Your task to perform on an android device: Go to Maps Image 0: 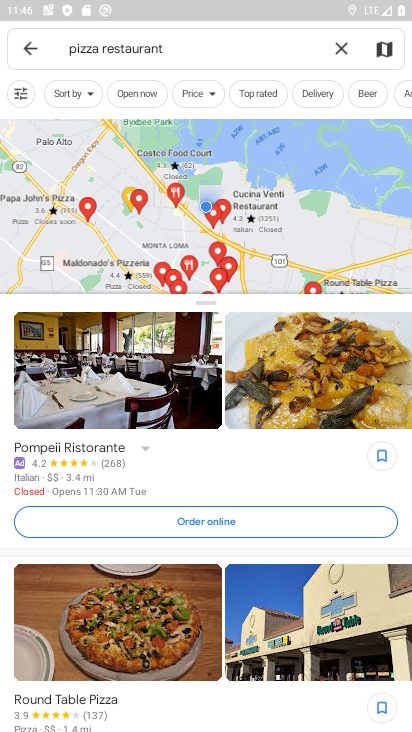
Step 0: press home button
Your task to perform on an android device: Go to Maps Image 1: 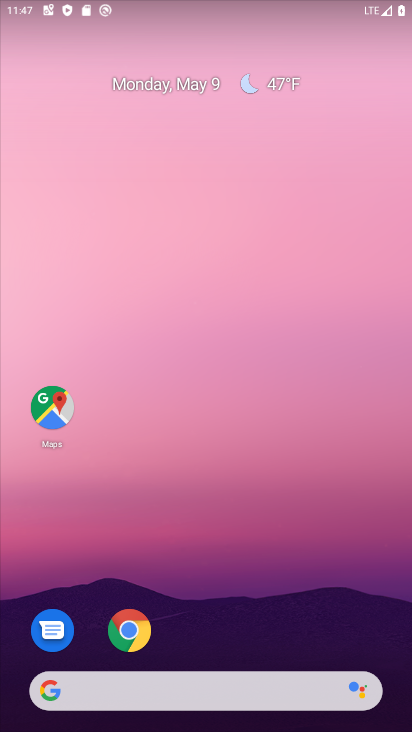
Step 1: click (53, 415)
Your task to perform on an android device: Go to Maps Image 2: 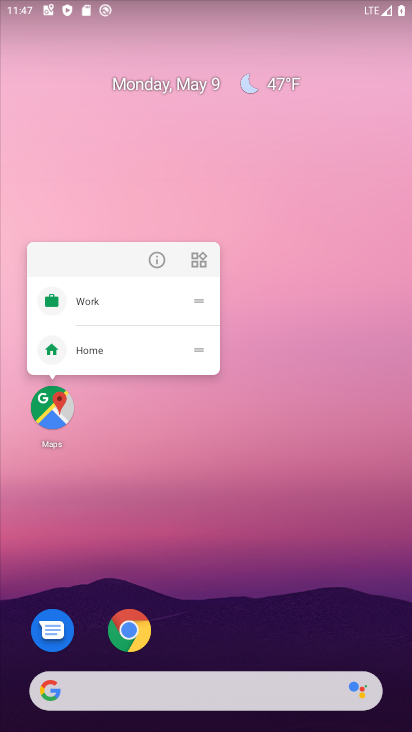
Step 2: click (58, 408)
Your task to perform on an android device: Go to Maps Image 3: 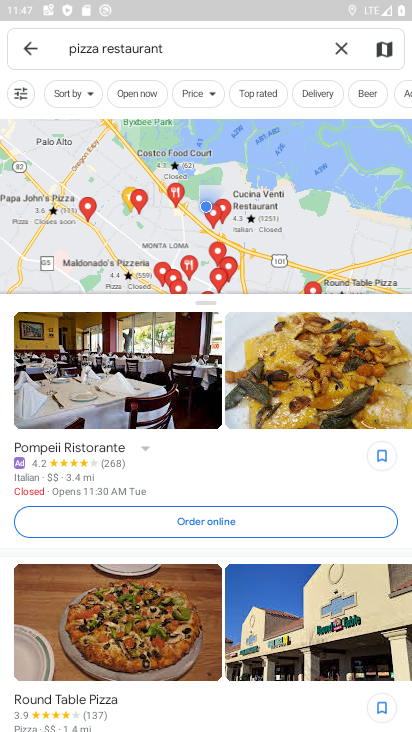
Step 3: click (28, 48)
Your task to perform on an android device: Go to Maps Image 4: 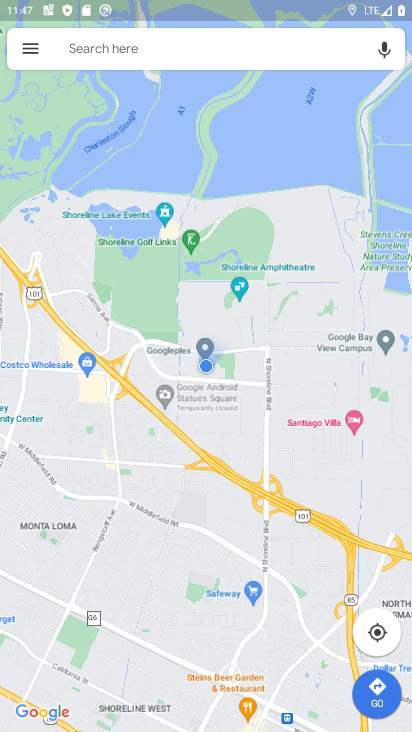
Step 4: task complete